Your task to perform on an android device: Go to notification settings Image 0: 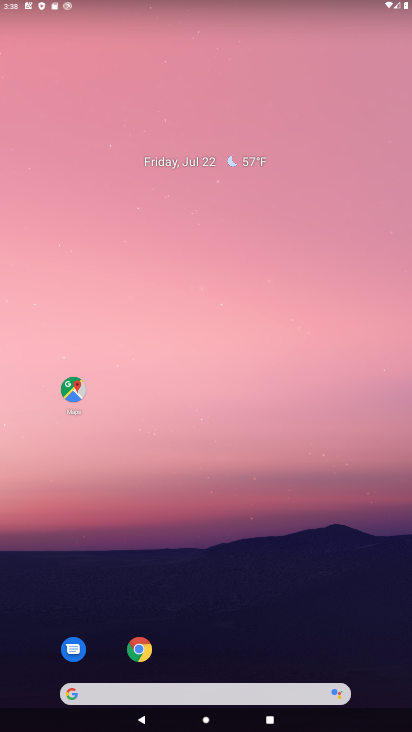
Step 0: drag from (86, 567) to (288, 195)
Your task to perform on an android device: Go to notification settings Image 1: 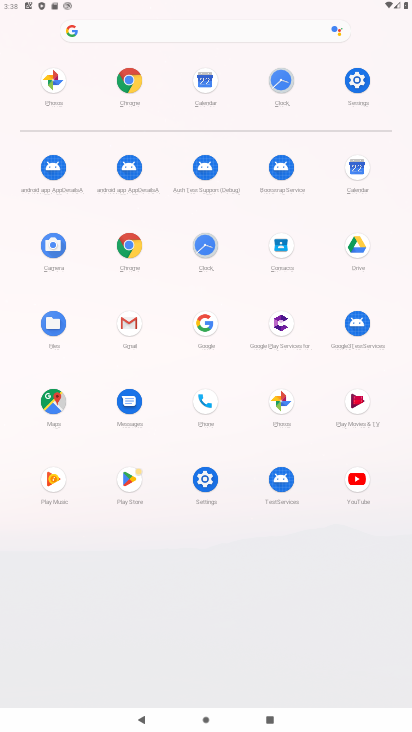
Step 1: click (208, 477)
Your task to perform on an android device: Go to notification settings Image 2: 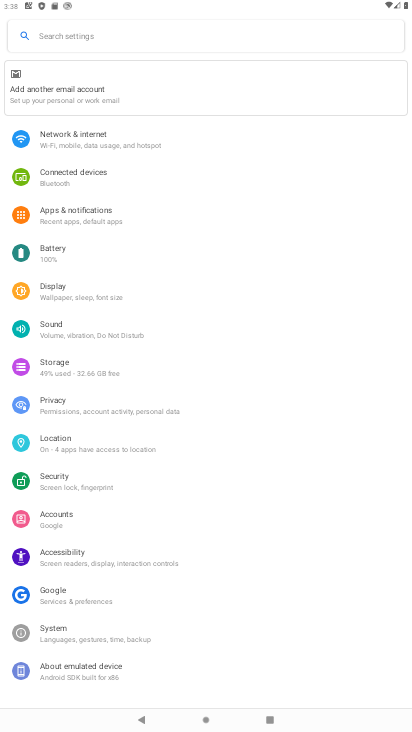
Step 2: click (81, 216)
Your task to perform on an android device: Go to notification settings Image 3: 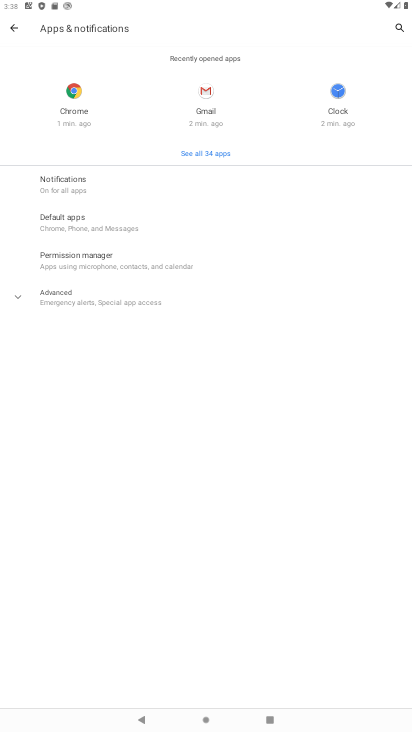
Step 3: task complete